Your task to perform on an android device: set an alarm Image 0: 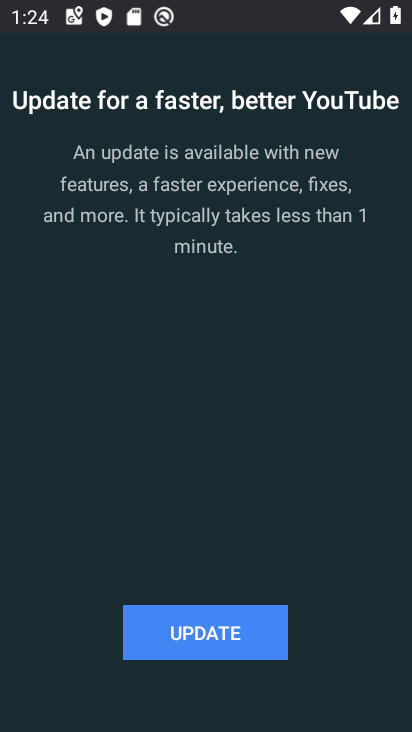
Step 0: press home button
Your task to perform on an android device: set an alarm Image 1: 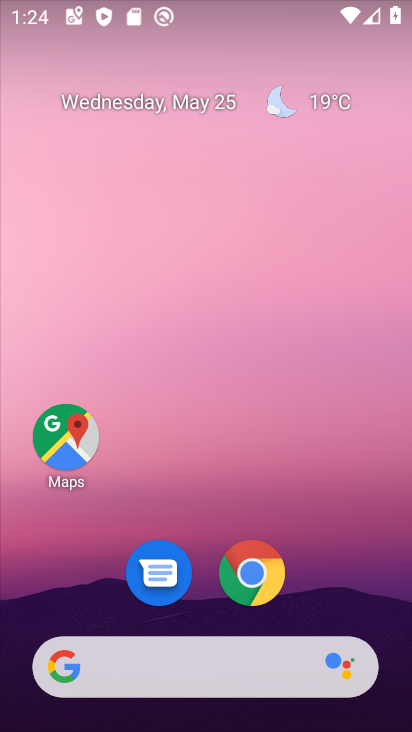
Step 1: drag from (378, 613) to (355, 39)
Your task to perform on an android device: set an alarm Image 2: 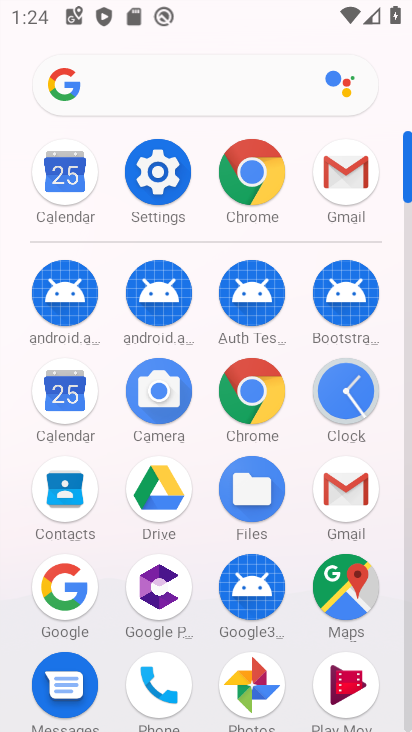
Step 2: click (408, 705)
Your task to perform on an android device: set an alarm Image 3: 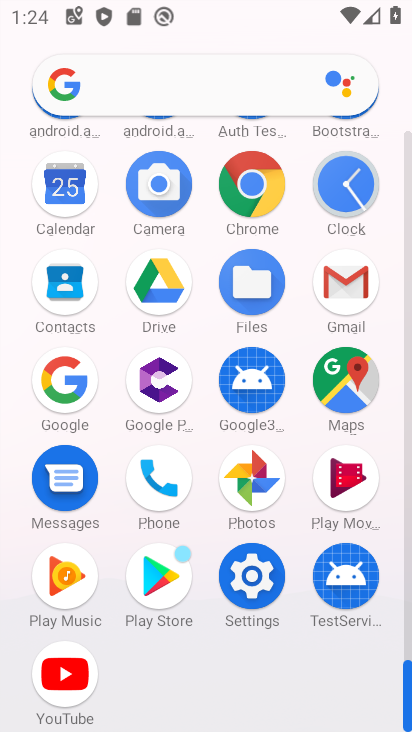
Step 3: click (344, 179)
Your task to perform on an android device: set an alarm Image 4: 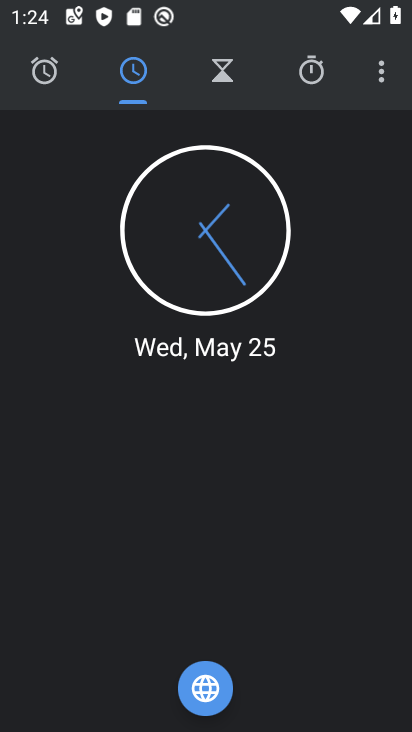
Step 4: click (42, 73)
Your task to perform on an android device: set an alarm Image 5: 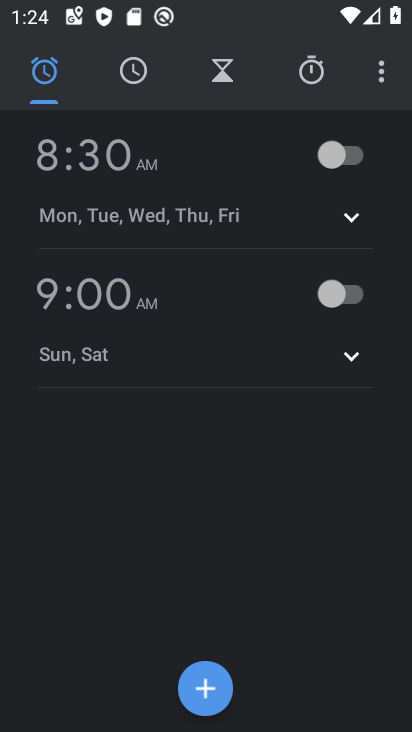
Step 5: task complete